Your task to perform on an android device: Go to eBay Image 0: 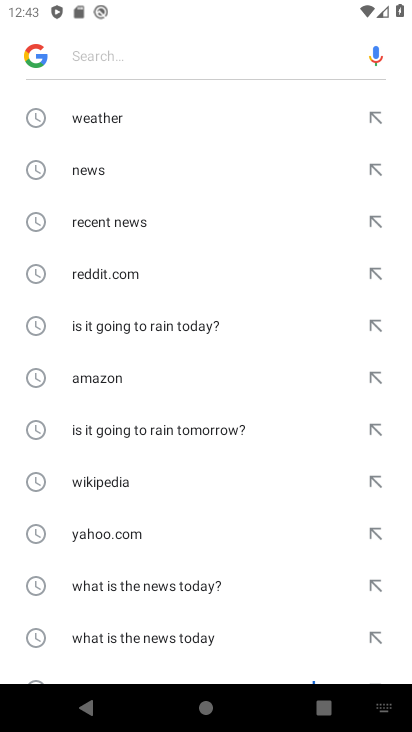
Step 0: press home button
Your task to perform on an android device: Go to eBay Image 1: 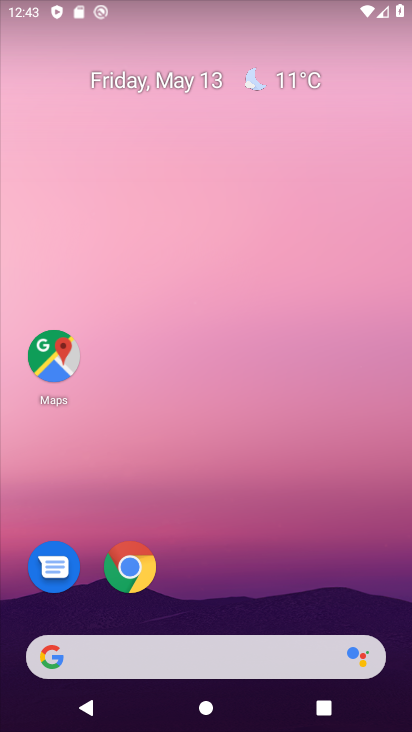
Step 1: click (120, 586)
Your task to perform on an android device: Go to eBay Image 2: 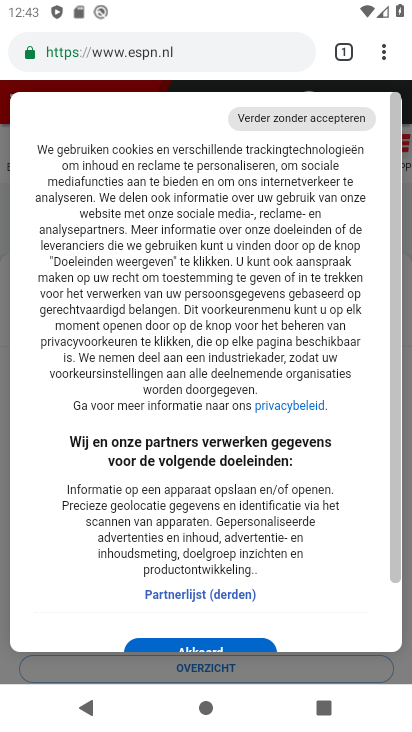
Step 2: press back button
Your task to perform on an android device: Go to eBay Image 3: 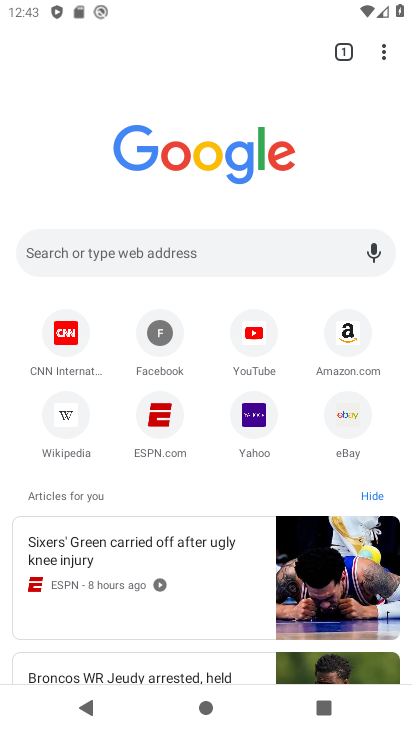
Step 3: click (349, 426)
Your task to perform on an android device: Go to eBay Image 4: 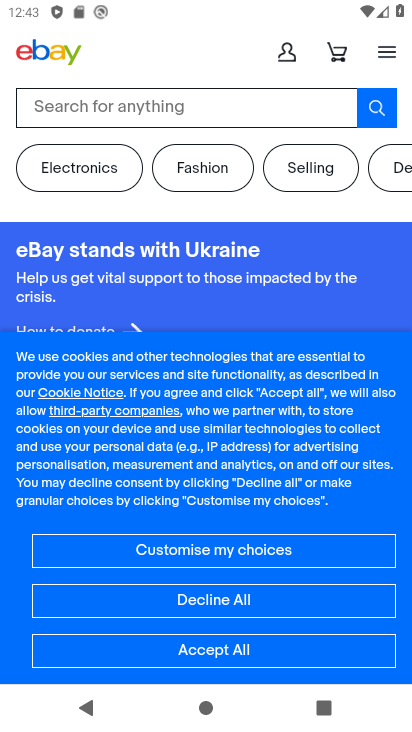
Step 4: task complete